Your task to perform on an android device: uninstall "eBay: The shopping marketplace" Image 0: 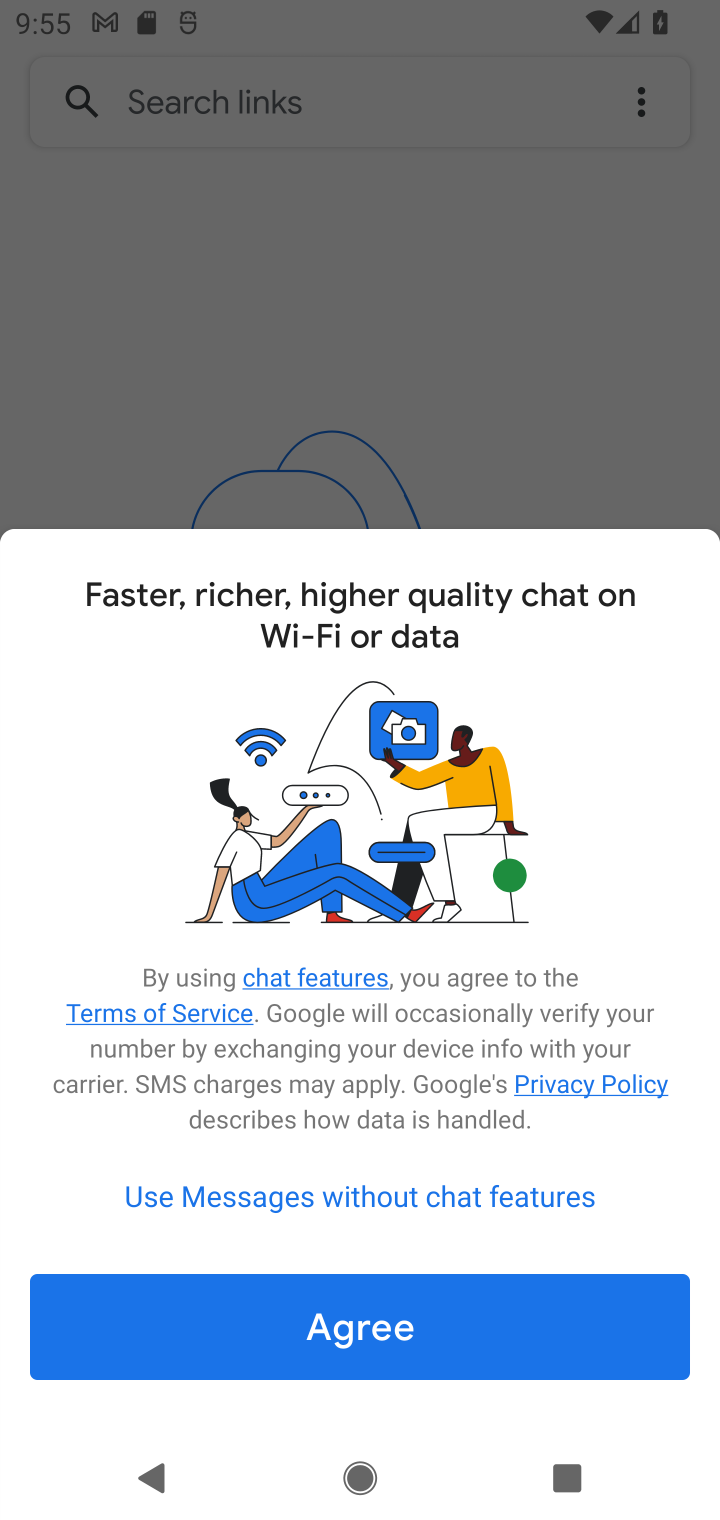
Step 0: press home button
Your task to perform on an android device: uninstall "eBay: The shopping marketplace" Image 1: 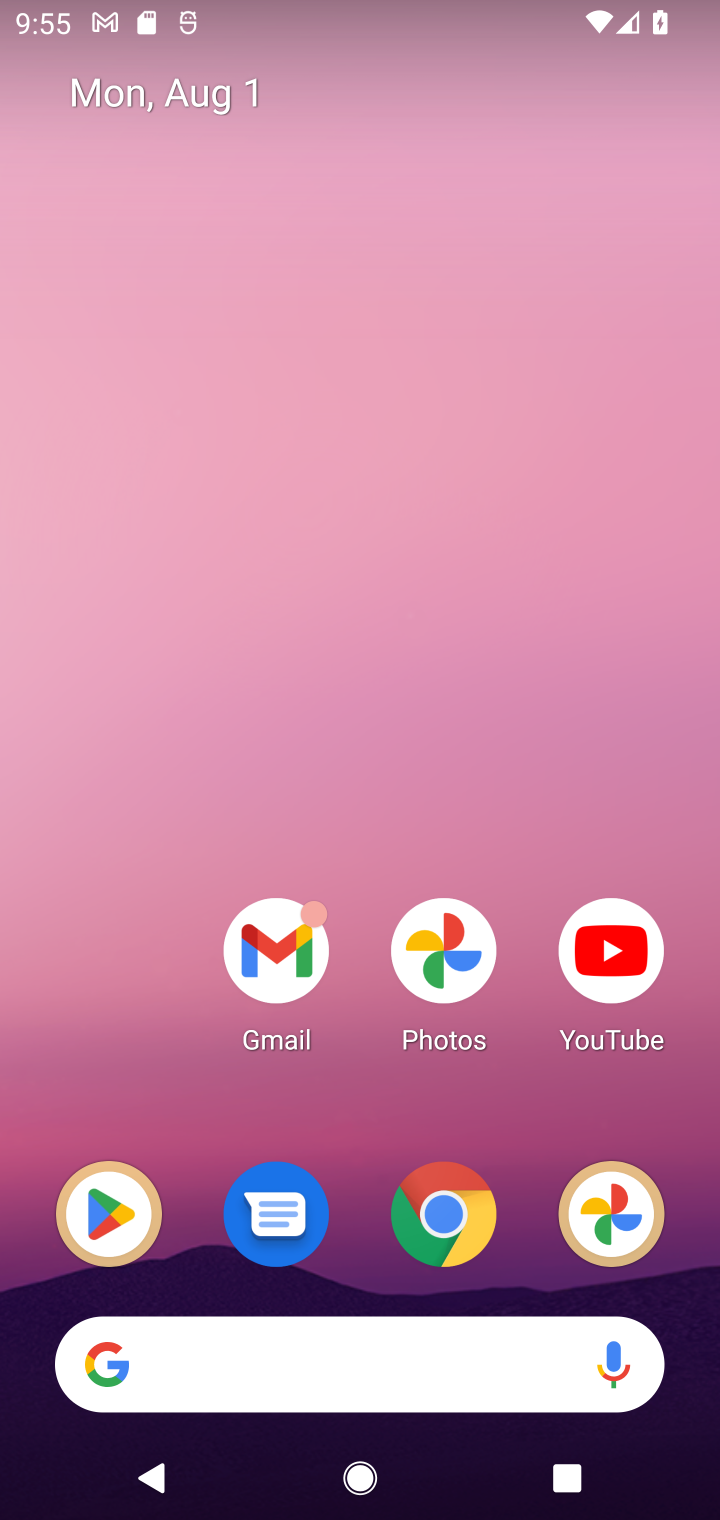
Step 1: click (105, 1210)
Your task to perform on an android device: uninstall "eBay: The shopping marketplace" Image 2: 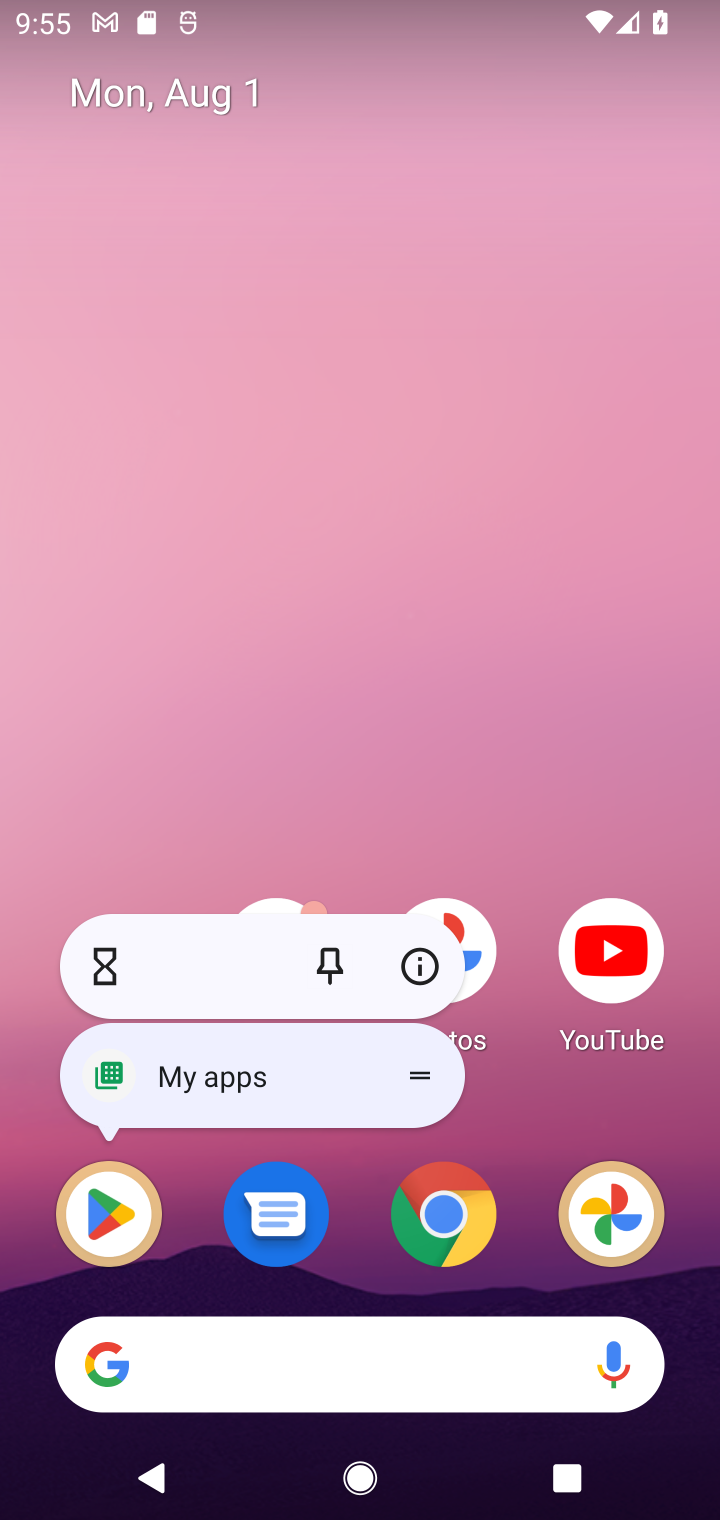
Step 2: click (105, 1211)
Your task to perform on an android device: uninstall "eBay: The shopping marketplace" Image 3: 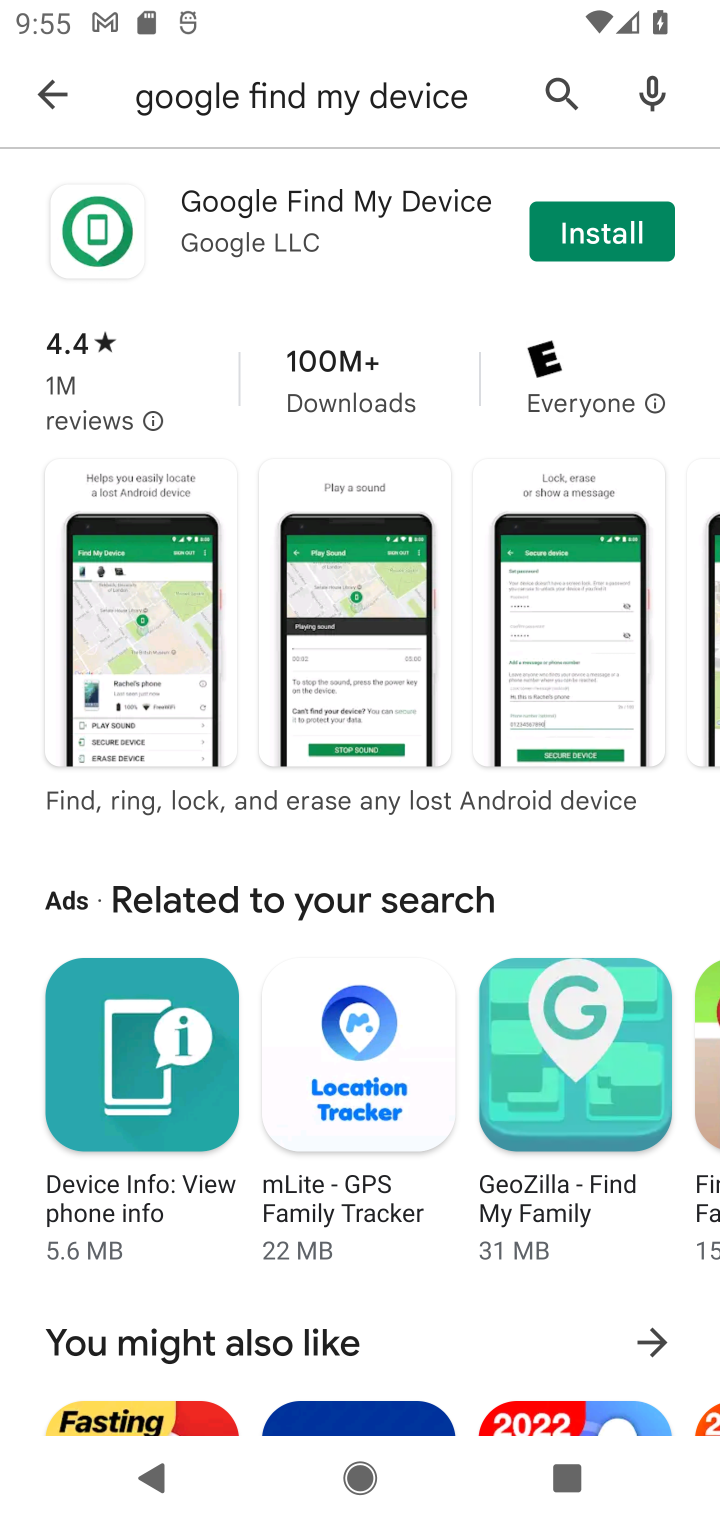
Step 3: click (556, 79)
Your task to perform on an android device: uninstall "eBay: The shopping marketplace" Image 4: 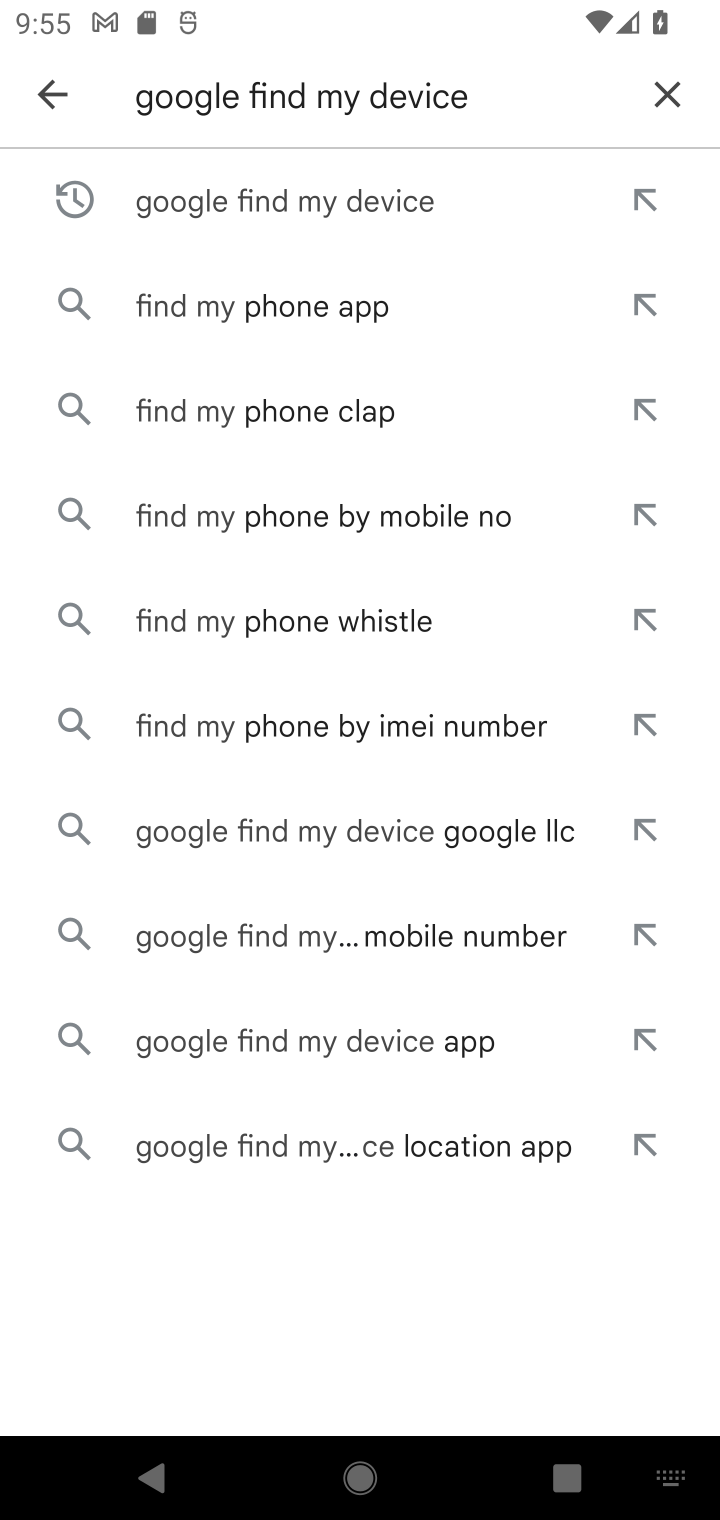
Step 4: click (672, 86)
Your task to perform on an android device: uninstall "eBay: The shopping marketplace" Image 5: 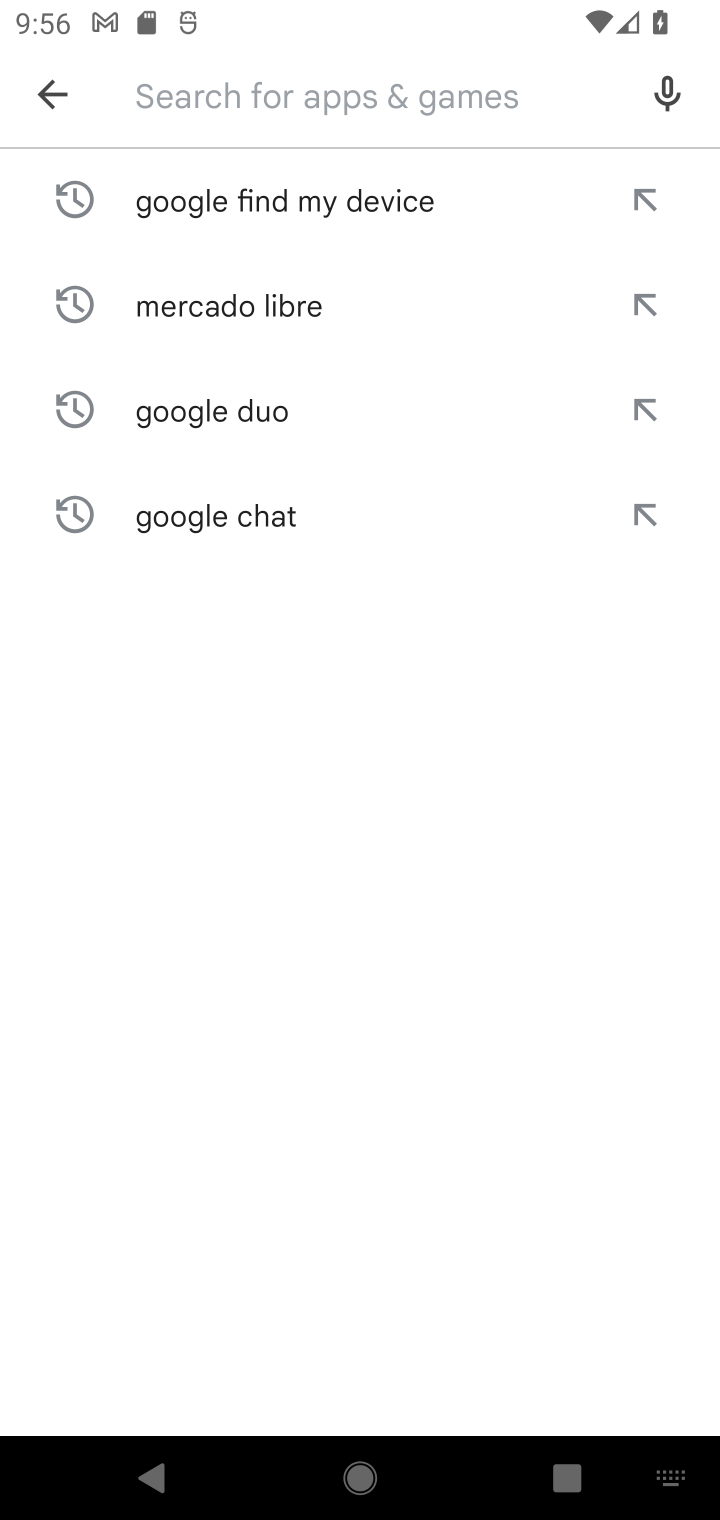
Step 5: type "eBay: The shopping marketplace"
Your task to perform on an android device: uninstall "eBay: The shopping marketplace" Image 6: 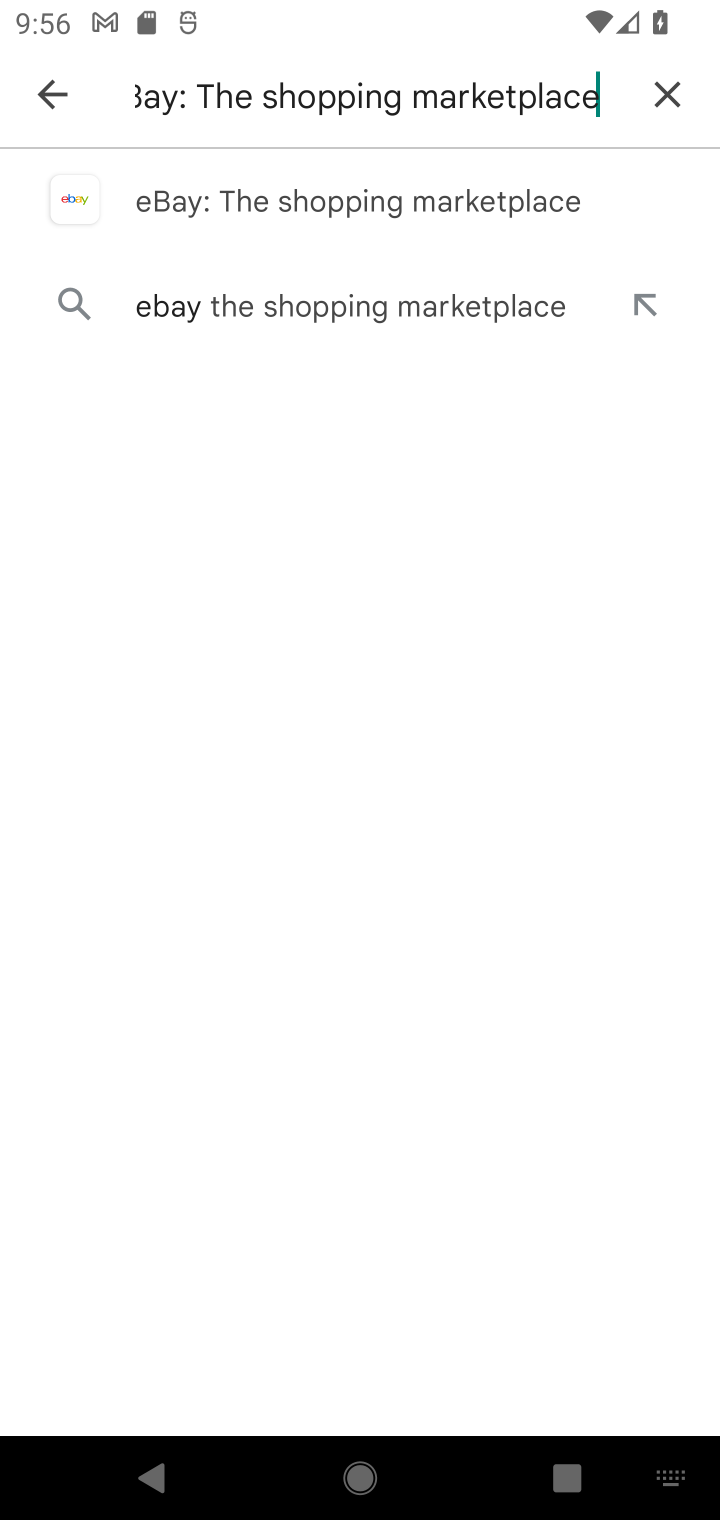
Step 6: click (291, 198)
Your task to perform on an android device: uninstall "eBay: The shopping marketplace" Image 7: 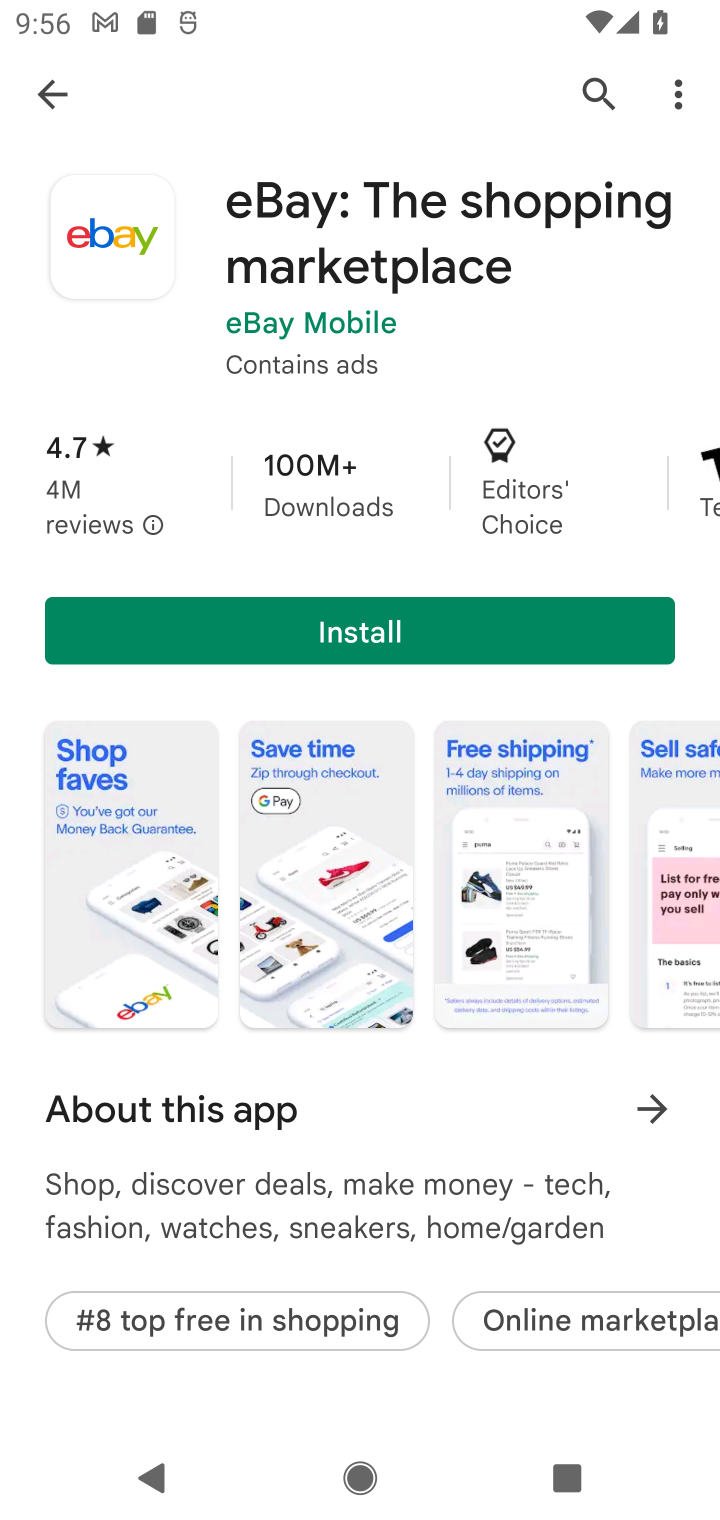
Step 7: task complete